Your task to perform on an android device: change your default location settings in chrome Image 0: 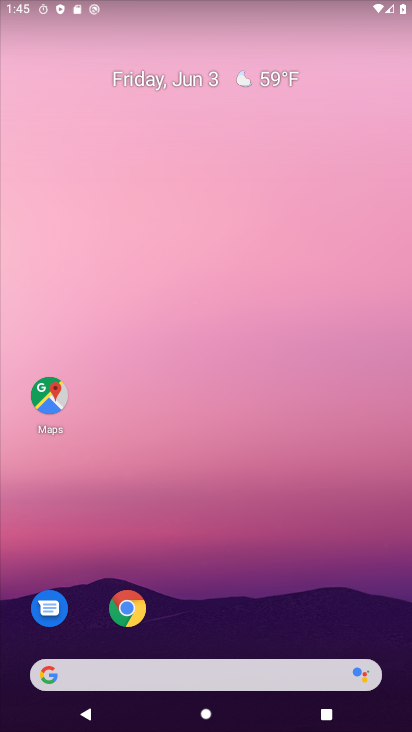
Step 0: click (117, 614)
Your task to perform on an android device: change your default location settings in chrome Image 1: 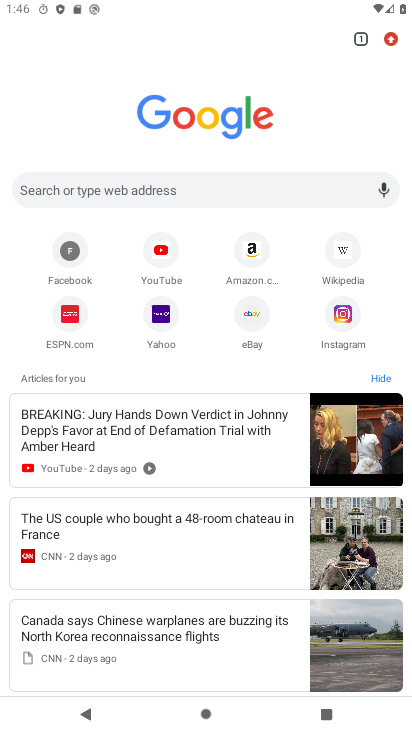
Step 1: drag from (390, 43) to (257, 381)
Your task to perform on an android device: change your default location settings in chrome Image 2: 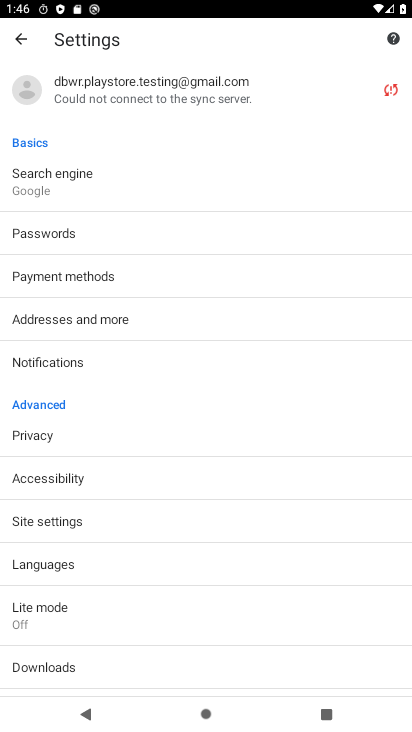
Step 2: click (83, 534)
Your task to perform on an android device: change your default location settings in chrome Image 3: 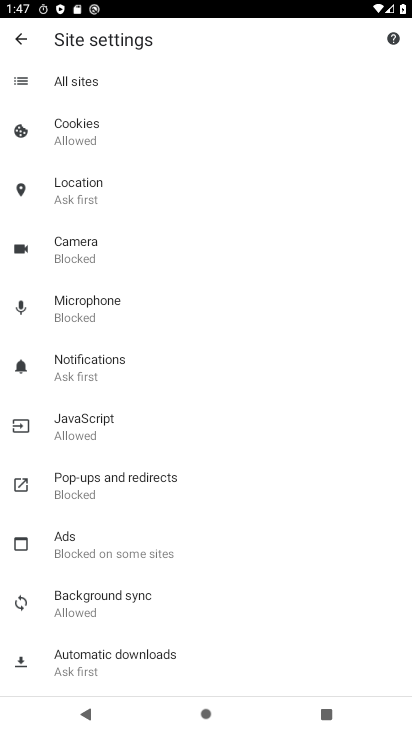
Step 3: click (94, 196)
Your task to perform on an android device: change your default location settings in chrome Image 4: 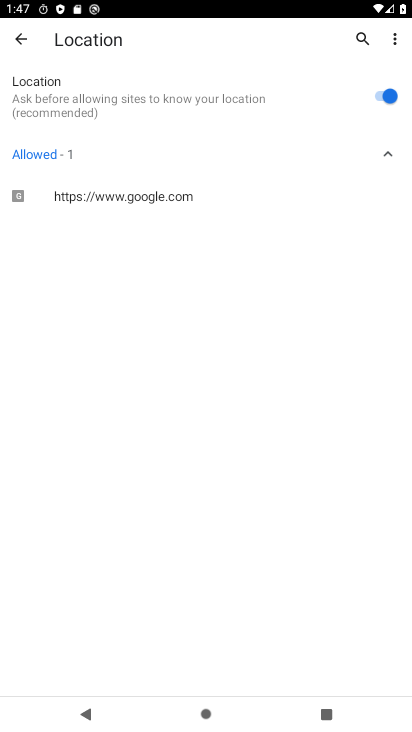
Step 4: click (384, 86)
Your task to perform on an android device: change your default location settings in chrome Image 5: 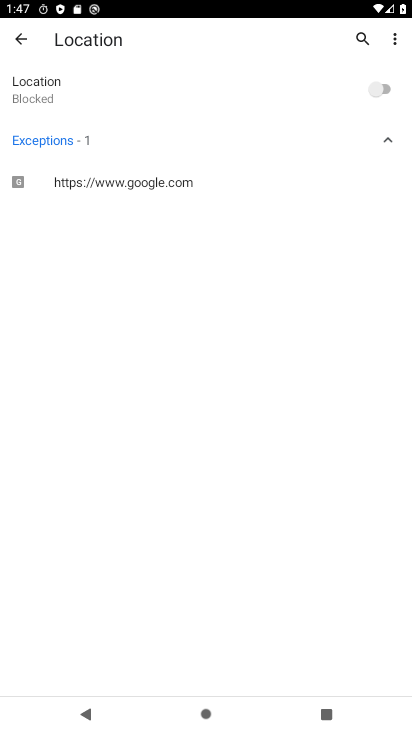
Step 5: task complete